Your task to perform on an android device: change notification settings in the gmail app Image 0: 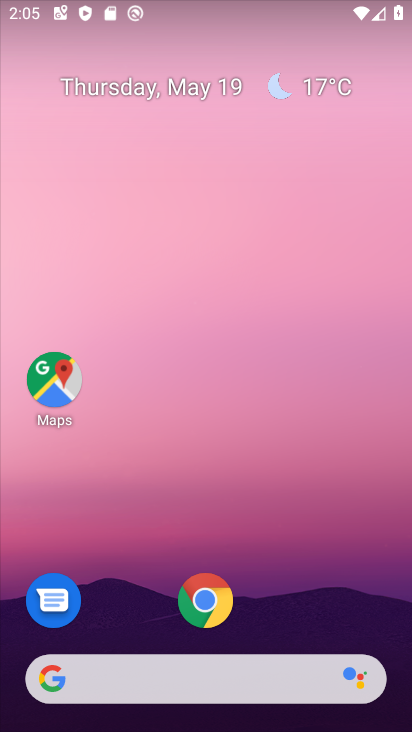
Step 0: drag from (319, 591) to (280, 191)
Your task to perform on an android device: change notification settings in the gmail app Image 1: 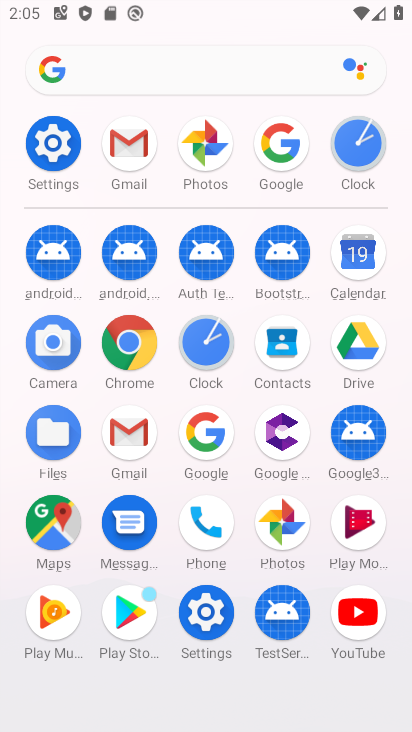
Step 1: click (141, 152)
Your task to perform on an android device: change notification settings in the gmail app Image 2: 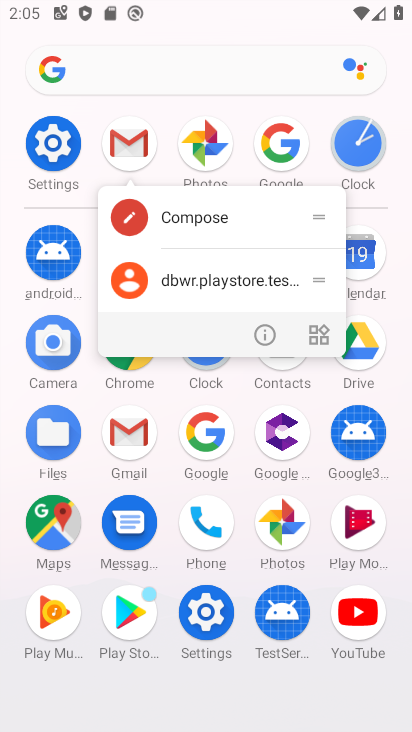
Step 2: click (269, 331)
Your task to perform on an android device: change notification settings in the gmail app Image 3: 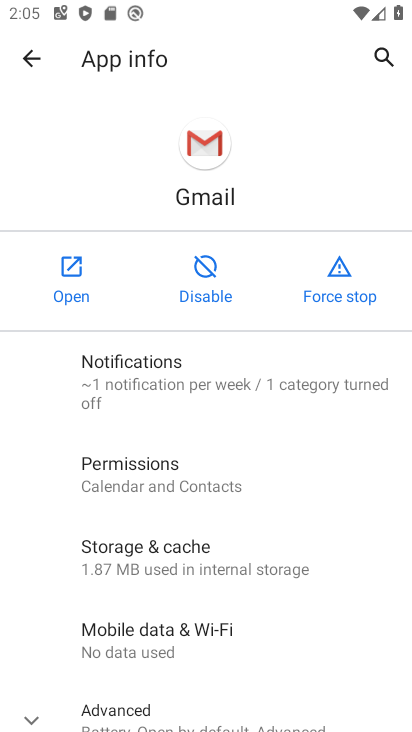
Step 3: click (172, 364)
Your task to perform on an android device: change notification settings in the gmail app Image 4: 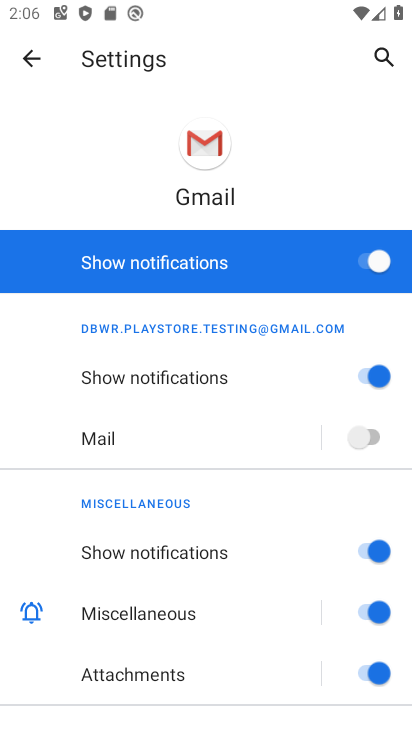
Step 4: click (374, 260)
Your task to perform on an android device: change notification settings in the gmail app Image 5: 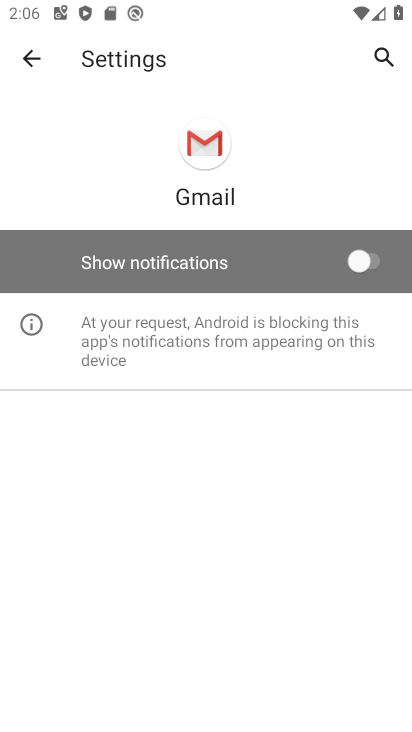
Step 5: task complete